Your task to perform on an android device: open a new tab in the chrome app Image 0: 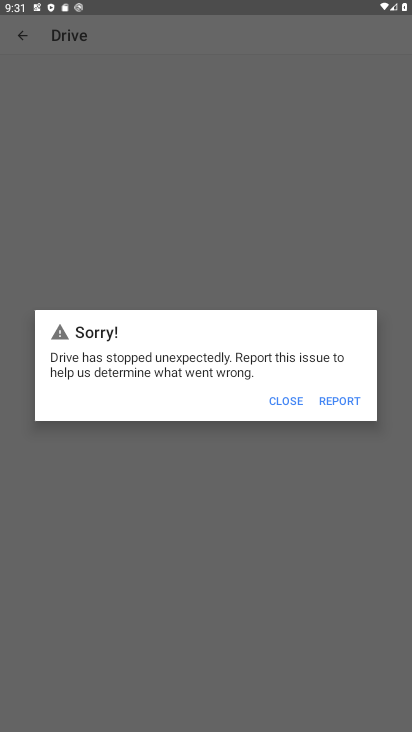
Step 0: press home button
Your task to perform on an android device: open a new tab in the chrome app Image 1: 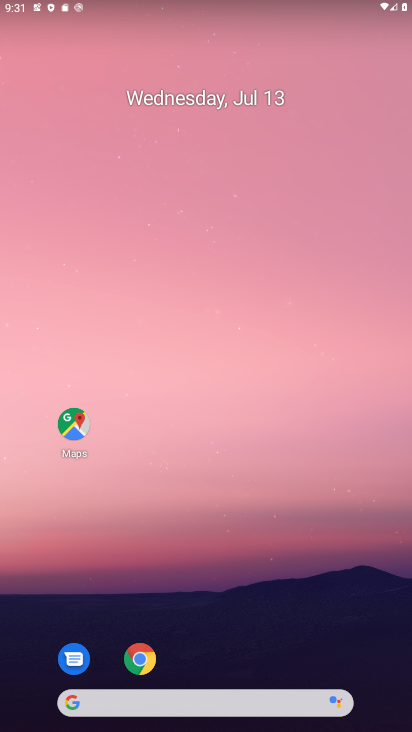
Step 1: click (137, 669)
Your task to perform on an android device: open a new tab in the chrome app Image 2: 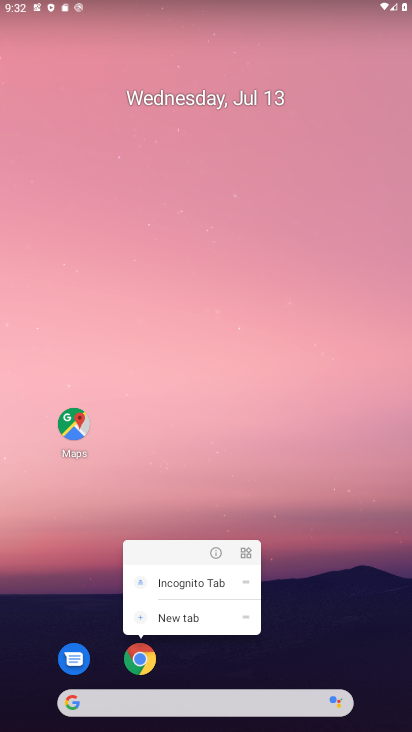
Step 2: click (152, 664)
Your task to perform on an android device: open a new tab in the chrome app Image 3: 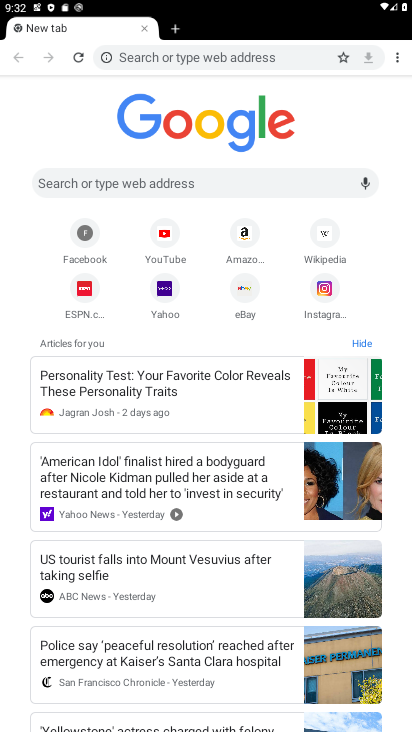
Step 3: task complete